Your task to perform on an android device: check data usage Image 0: 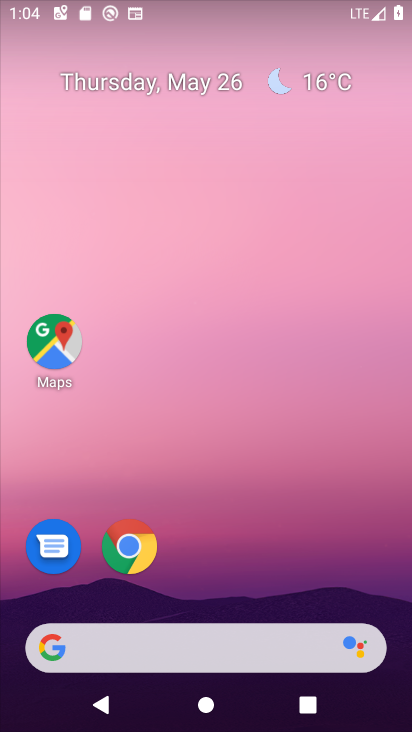
Step 0: drag from (164, 553) to (254, 195)
Your task to perform on an android device: check data usage Image 1: 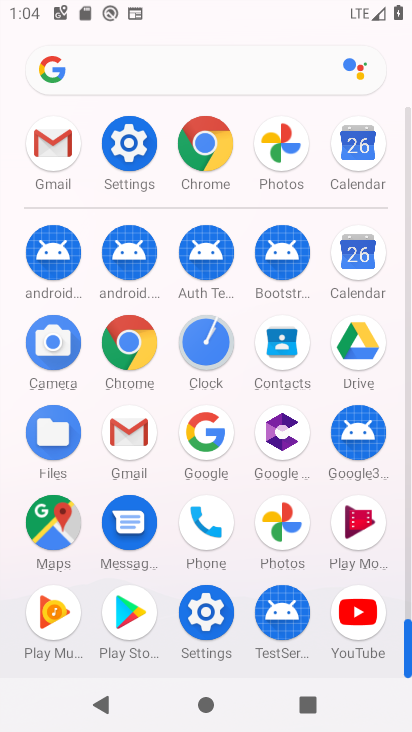
Step 1: click (211, 609)
Your task to perform on an android device: check data usage Image 2: 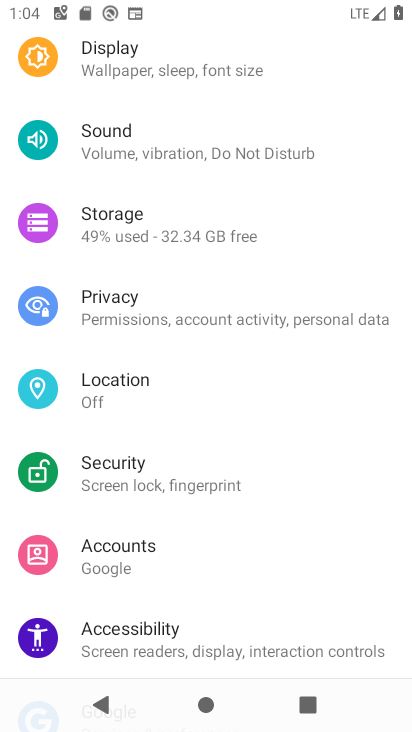
Step 2: drag from (159, 94) to (150, 527)
Your task to perform on an android device: check data usage Image 3: 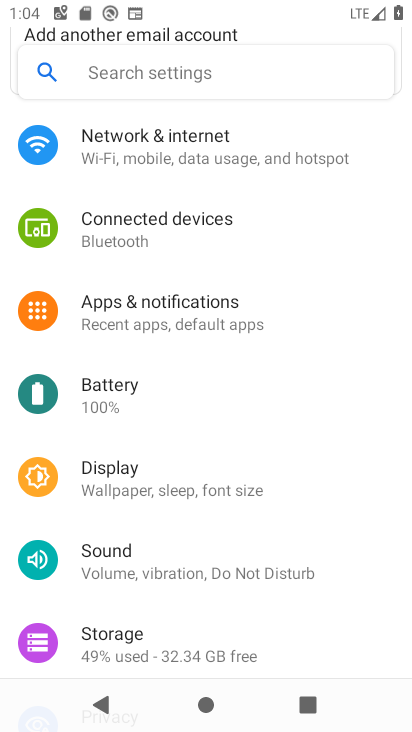
Step 3: click (140, 150)
Your task to perform on an android device: check data usage Image 4: 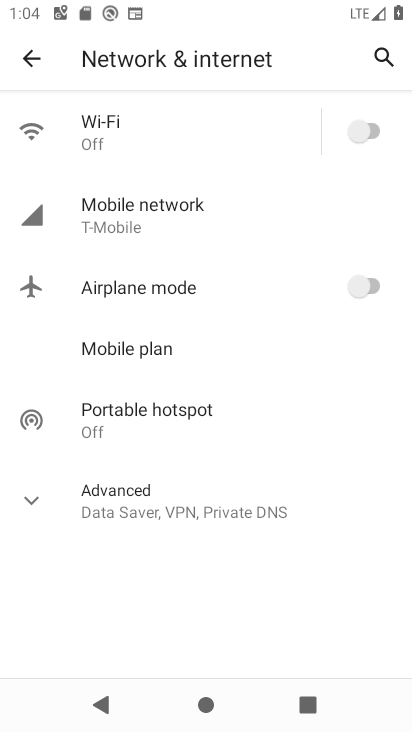
Step 4: click (156, 224)
Your task to perform on an android device: check data usage Image 5: 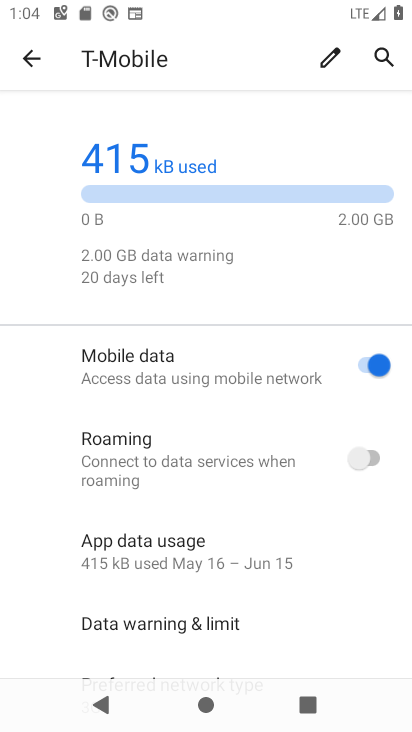
Step 5: task complete